Your task to perform on an android device: Go to CNN.com Image 0: 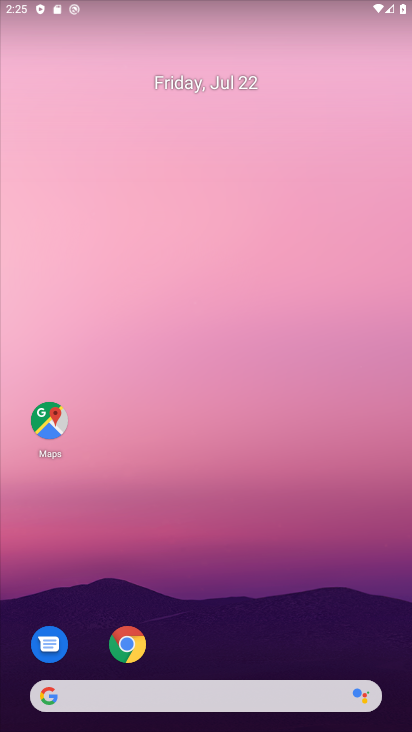
Step 0: press home button
Your task to perform on an android device: Go to CNN.com Image 1: 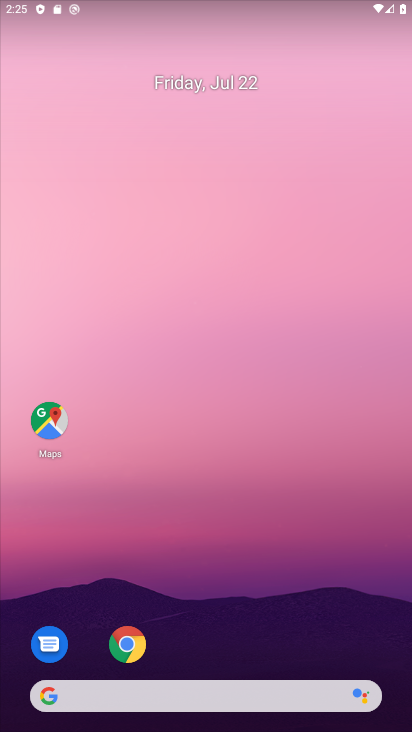
Step 1: click (45, 700)
Your task to perform on an android device: Go to CNN.com Image 2: 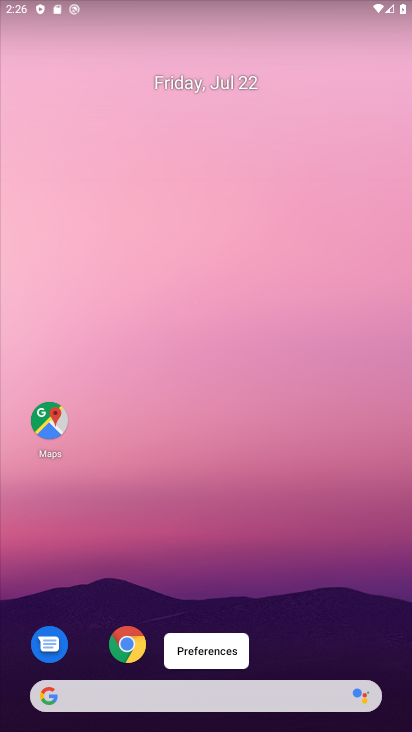
Step 2: click (47, 695)
Your task to perform on an android device: Go to CNN.com Image 3: 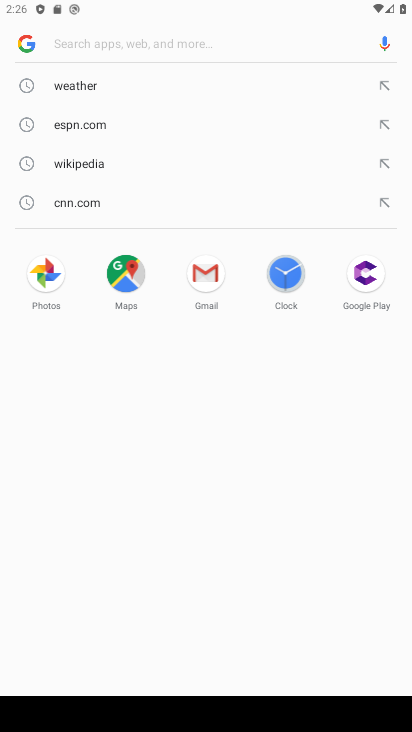
Step 3: type "CNN.com"
Your task to perform on an android device: Go to CNN.com Image 4: 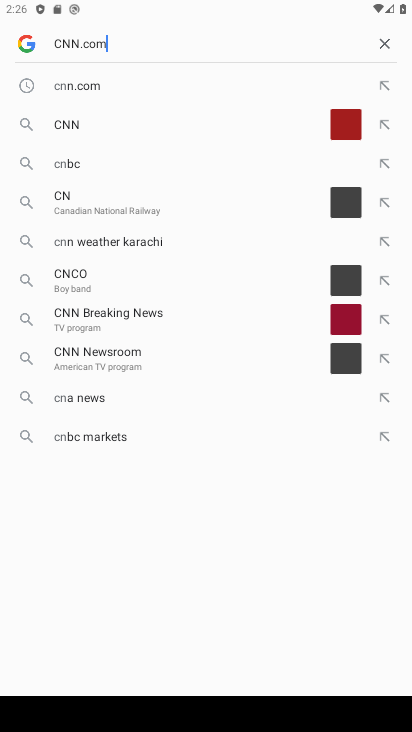
Step 4: press enter
Your task to perform on an android device: Go to CNN.com Image 5: 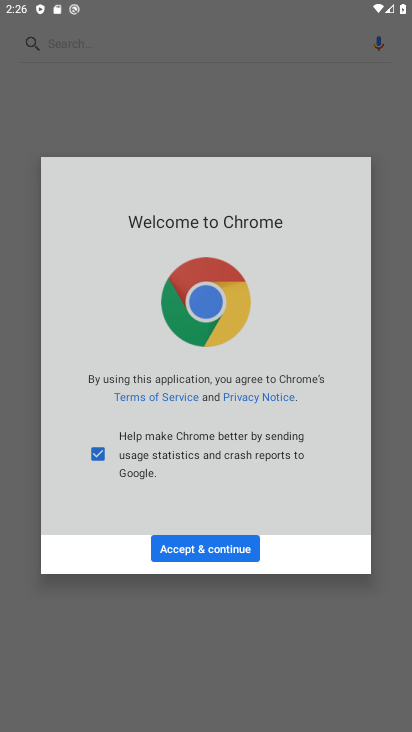
Step 5: click (216, 543)
Your task to perform on an android device: Go to CNN.com Image 6: 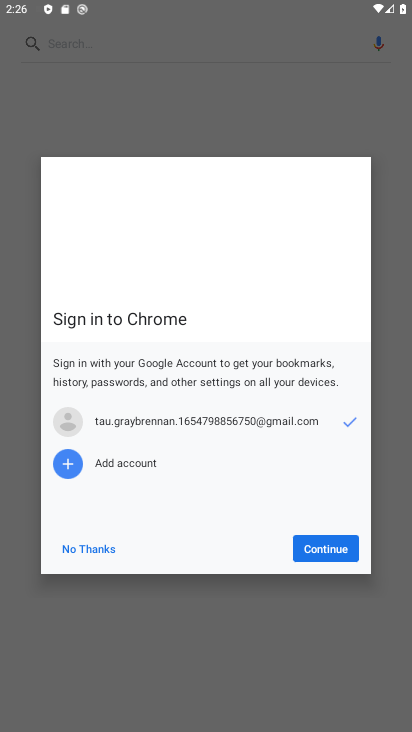
Step 6: click (322, 548)
Your task to perform on an android device: Go to CNN.com Image 7: 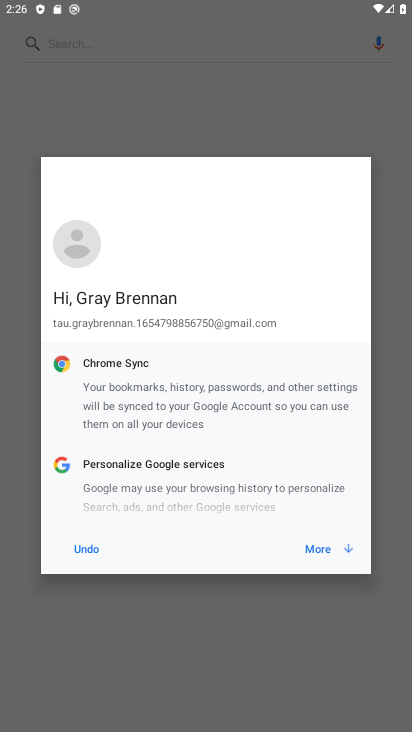
Step 7: click (337, 552)
Your task to perform on an android device: Go to CNN.com Image 8: 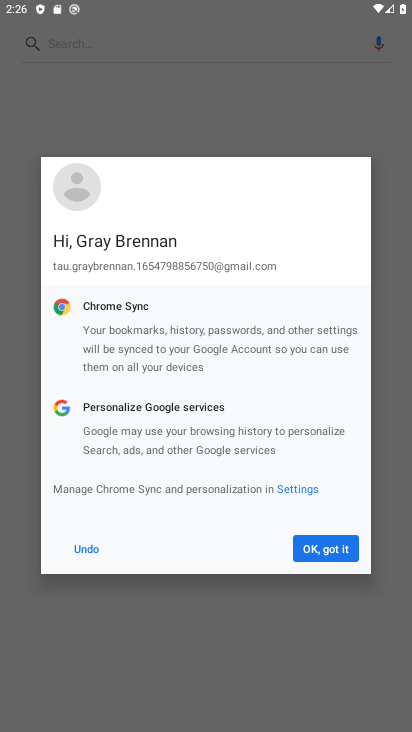
Step 8: click (336, 552)
Your task to perform on an android device: Go to CNN.com Image 9: 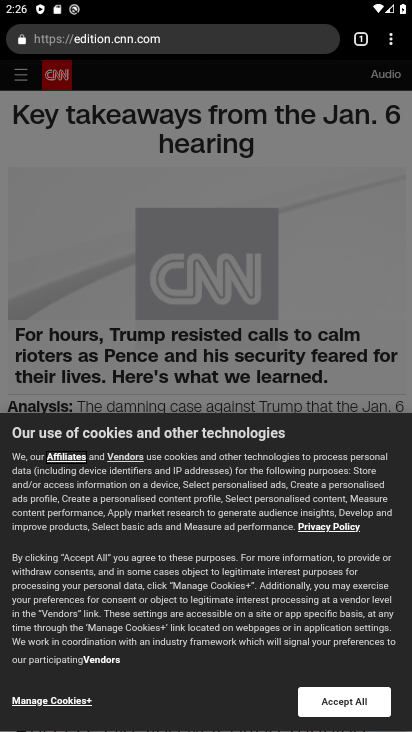
Step 9: task complete